Your task to perform on an android device: check battery use Image 0: 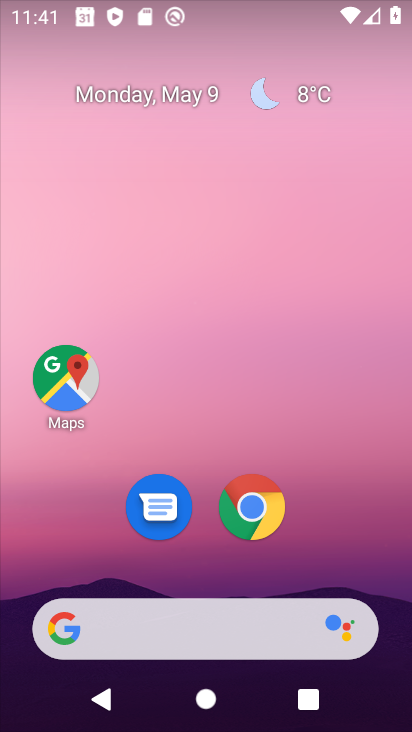
Step 0: drag from (339, 472) to (300, 26)
Your task to perform on an android device: check battery use Image 1: 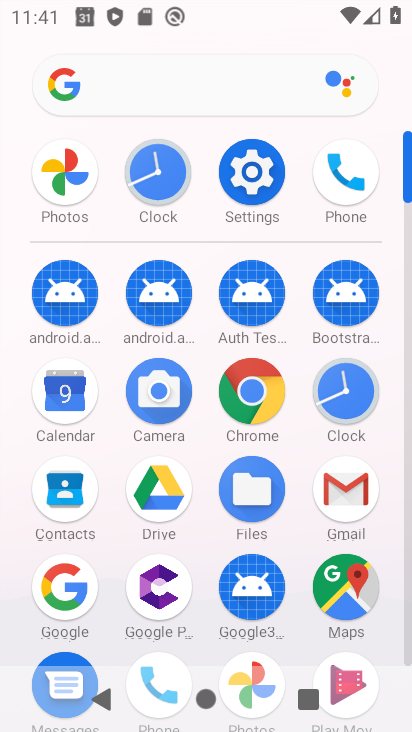
Step 1: click (254, 170)
Your task to perform on an android device: check battery use Image 2: 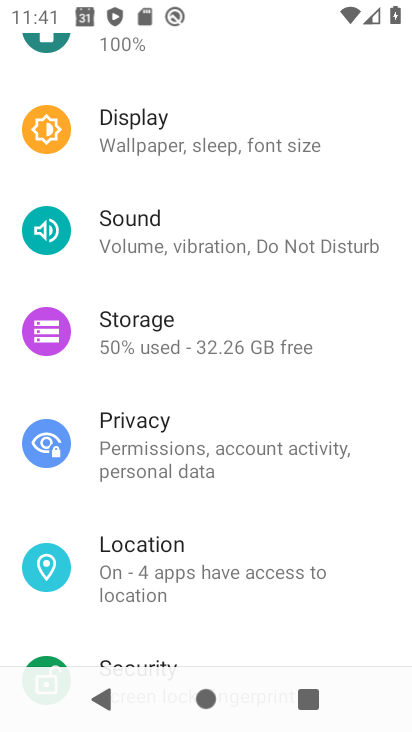
Step 2: drag from (224, 186) to (246, 432)
Your task to perform on an android device: check battery use Image 3: 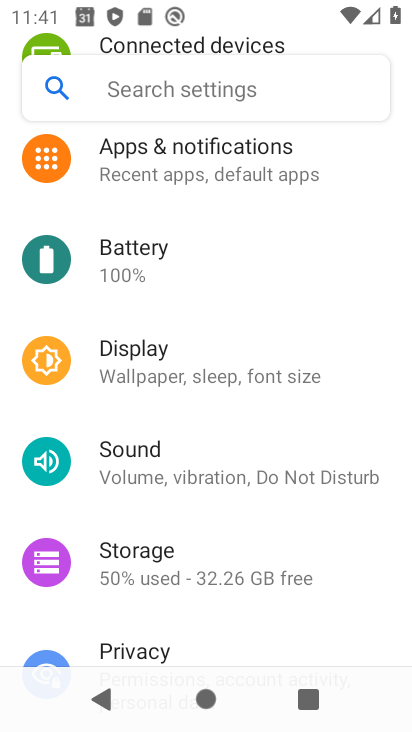
Step 3: click (188, 271)
Your task to perform on an android device: check battery use Image 4: 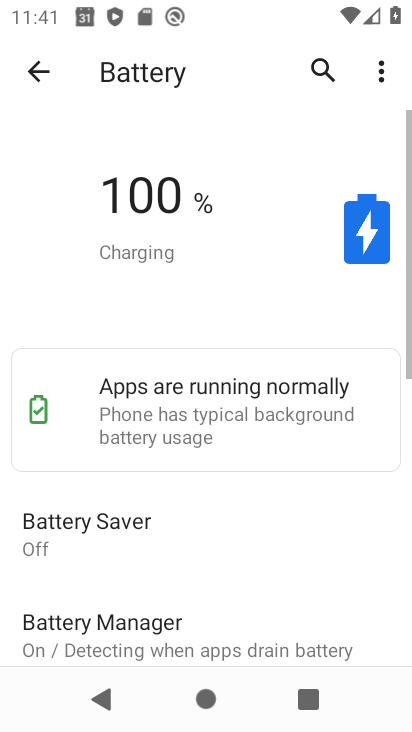
Step 4: click (387, 72)
Your task to perform on an android device: check battery use Image 5: 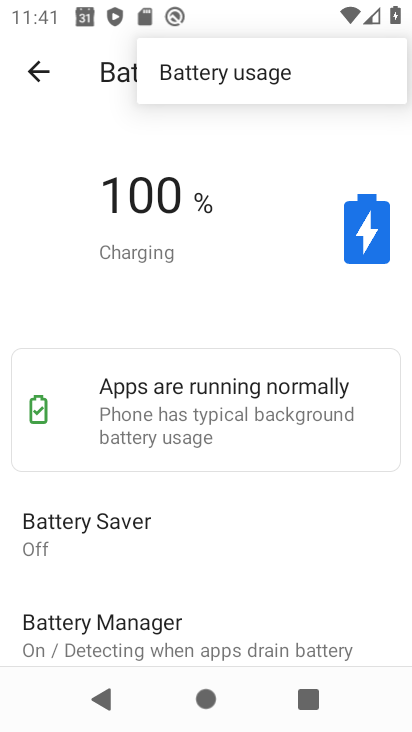
Step 5: click (258, 83)
Your task to perform on an android device: check battery use Image 6: 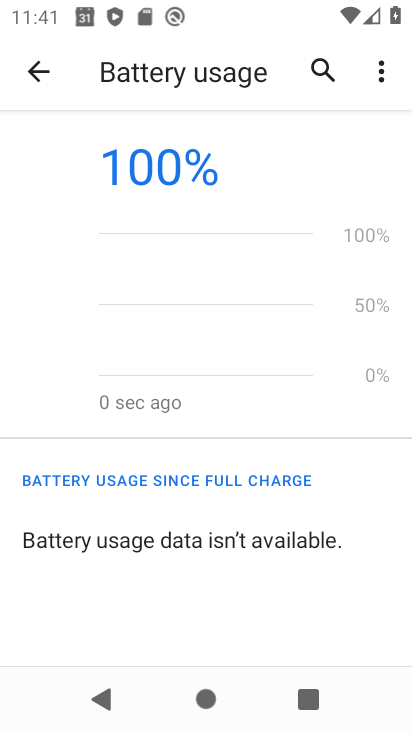
Step 6: task complete